Your task to perform on an android device: find photos in the google photos app Image 0: 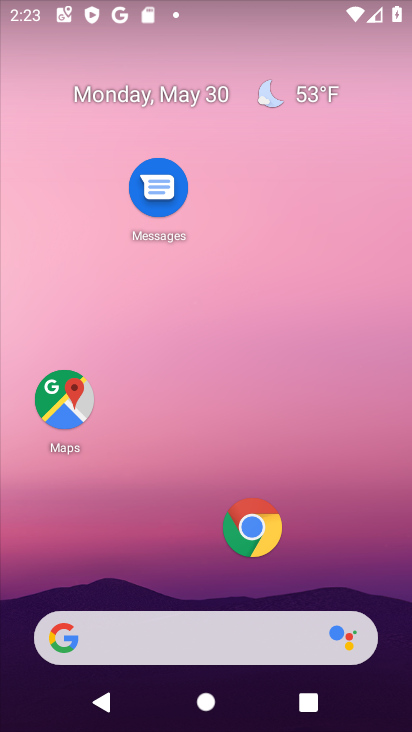
Step 0: drag from (192, 448) to (268, 181)
Your task to perform on an android device: find photos in the google photos app Image 1: 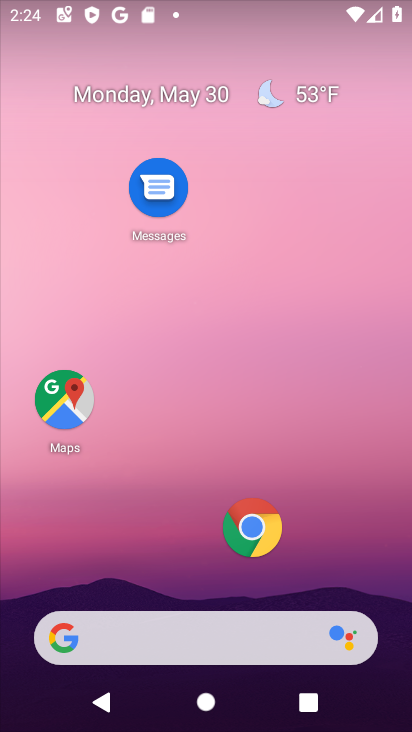
Step 1: drag from (171, 535) to (296, 59)
Your task to perform on an android device: find photos in the google photos app Image 2: 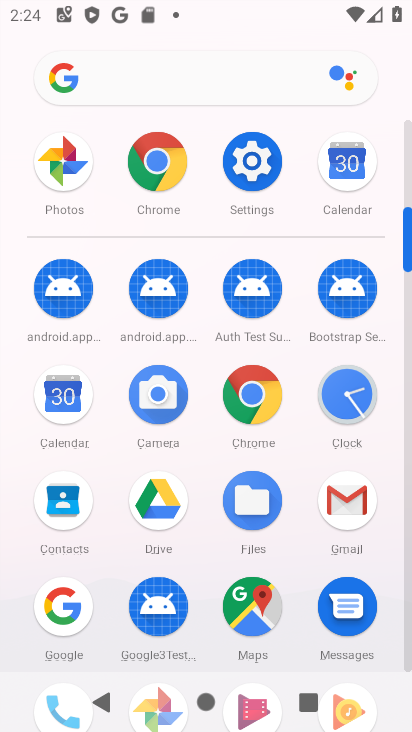
Step 2: drag from (210, 246) to (215, 60)
Your task to perform on an android device: find photos in the google photos app Image 3: 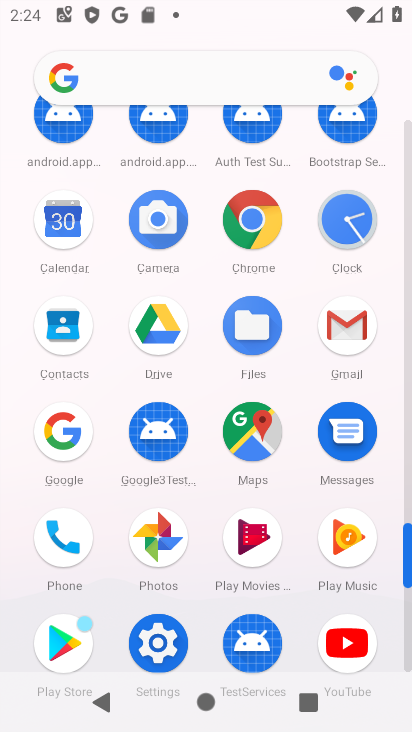
Step 3: click (164, 541)
Your task to perform on an android device: find photos in the google photos app Image 4: 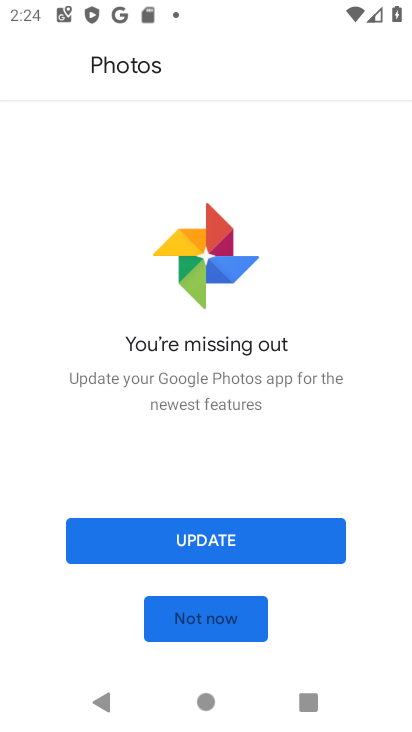
Step 4: click (234, 550)
Your task to perform on an android device: find photos in the google photos app Image 5: 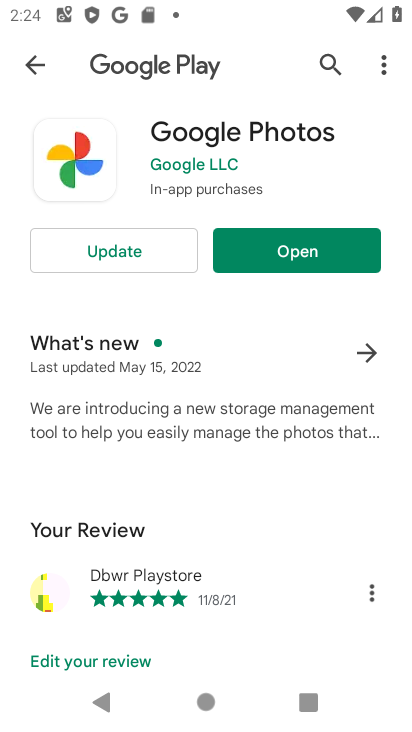
Step 5: click (145, 268)
Your task to perform on an android device: find photos in the google photos app Image 6: 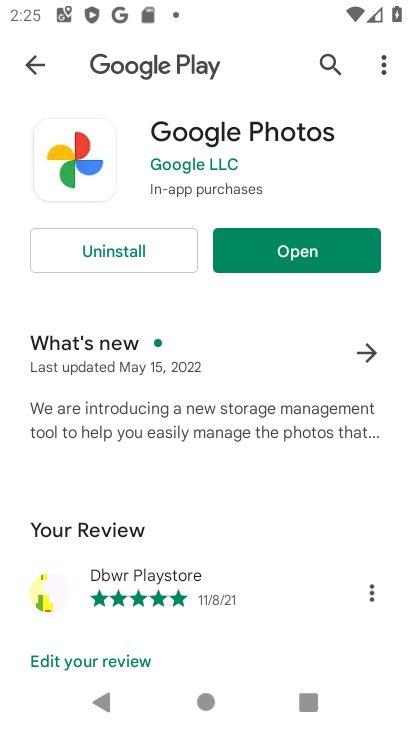
Step 6: click (336, 241)
Your task to perform on an android device: find photos in the google photos app Image 7: 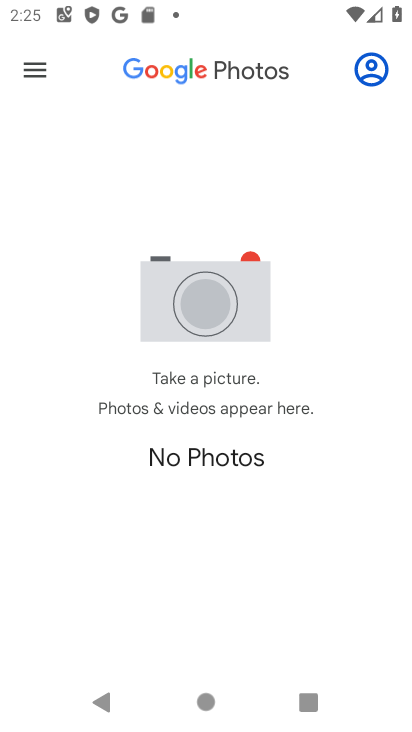
Step 7: click (31, 83)
Your task to perform on an android device: find photos in the google photos app Image 8: 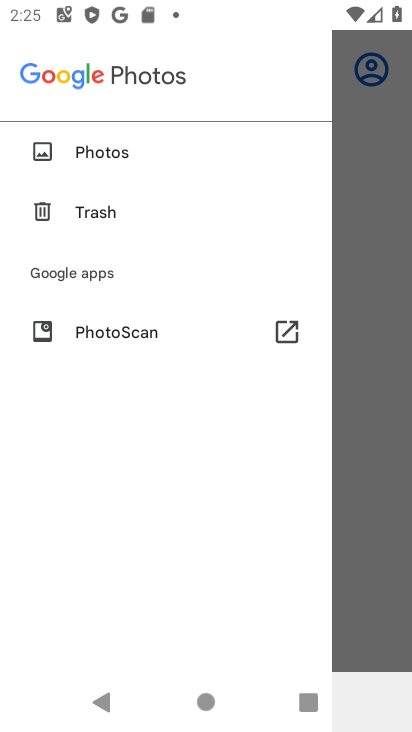
Step 8: click (97, 154)
Your task to perform on an android device: find photos in the google photos app Image 9: 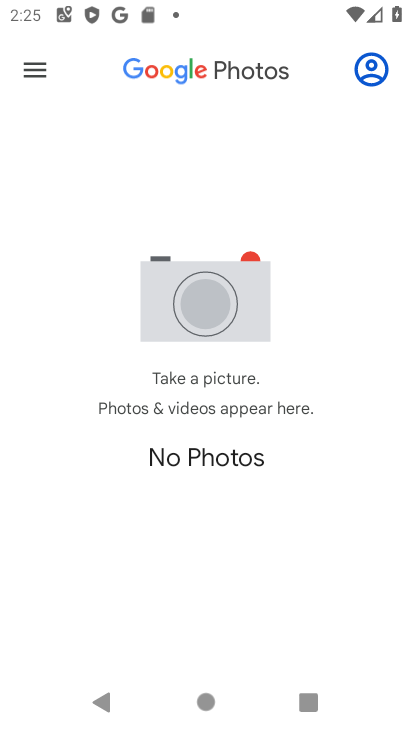
Step 9: click (106, 151)
Your task to perform on an android device: find photos in the google photos app Image 10: 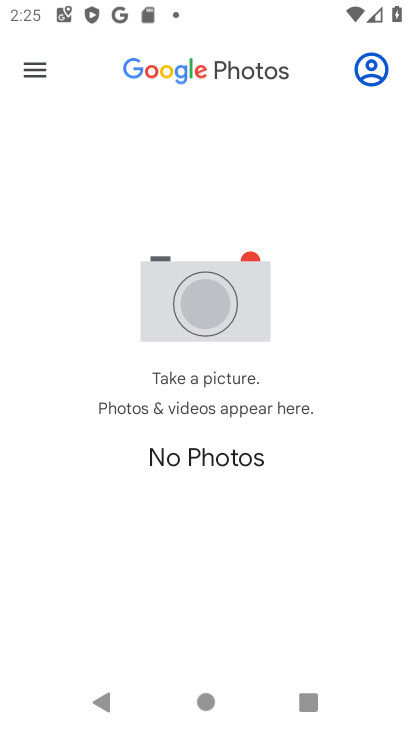
Step 10: task complete